Your task to perform on an android device: turn on airplane mode Image 0: 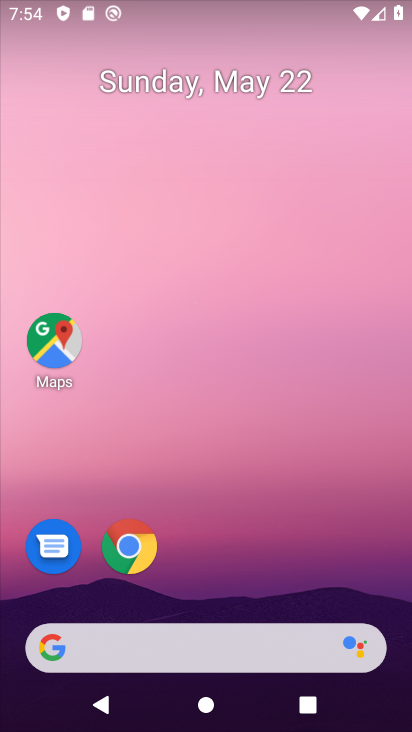
Step 0: drag from (323, 540) to (250, 5)
Your task to perform on an android device: turn on airplane mode Image 1: 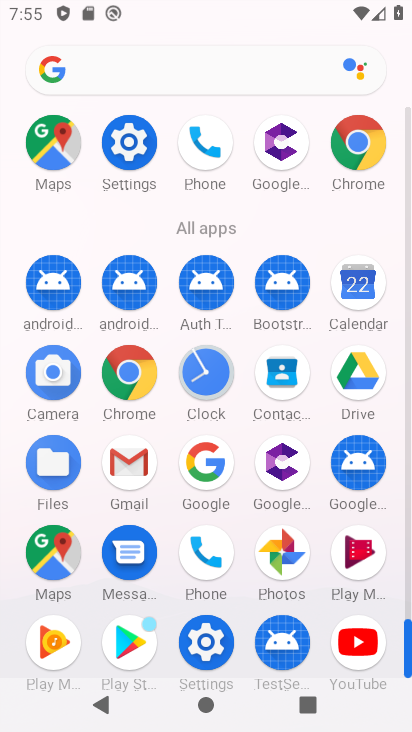
Step 1: click (136, 203)
Your task to perform on an android device: turn on airplane mode Image 2: 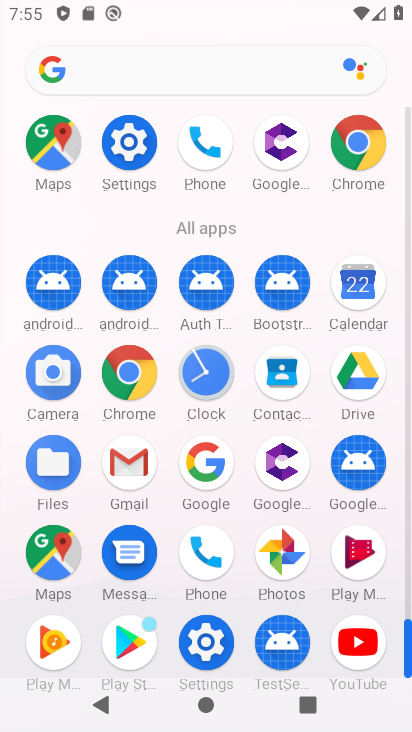
Step 2: click (120, 170)
Your task to perform on an android device: turn on airplane mode Image 3: 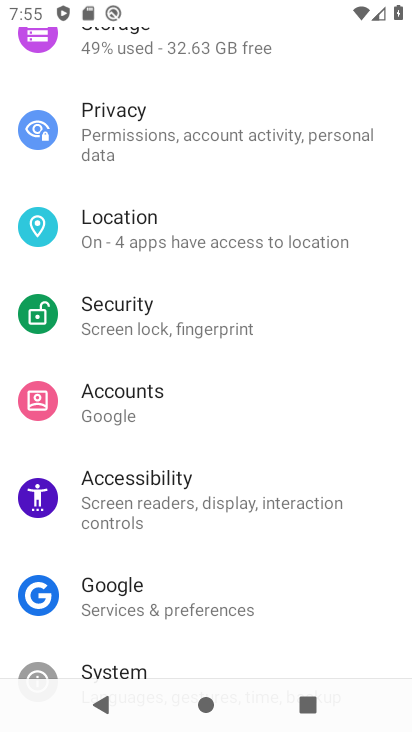
Step 3: drag from (120, 174) to (144, 563)
Your task to perform on an android device: turn on airplane mode Image 4: 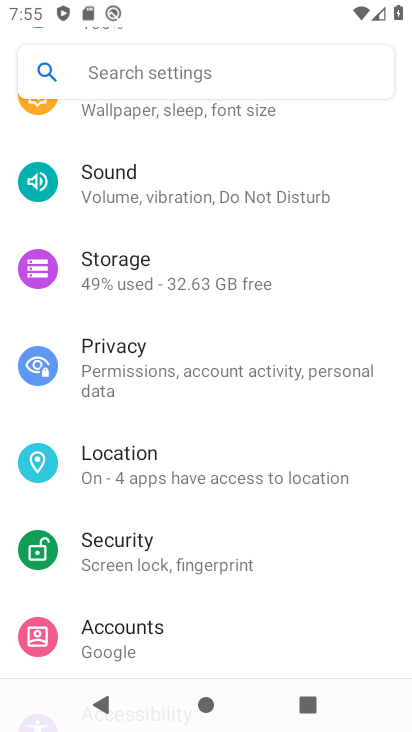
Step 4: drag from (150, 337) to (189, 565)
Your task to perform on an android device: turn on airplane mode Image 5: 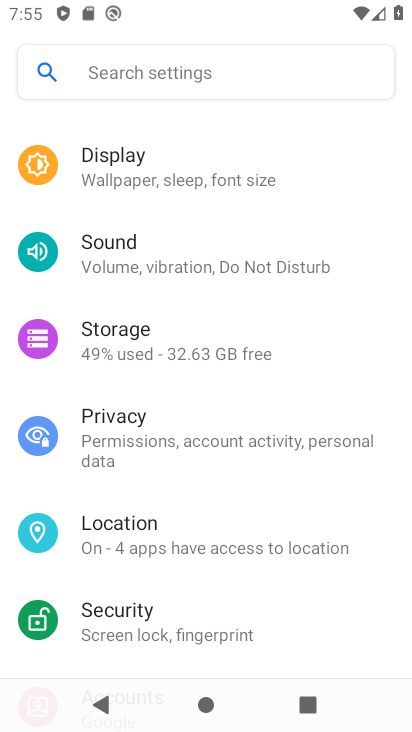
Step 5: drag from (177, 302) to (210, 581)
Your task to perform on an android device: turn on airplane mode Image 6: 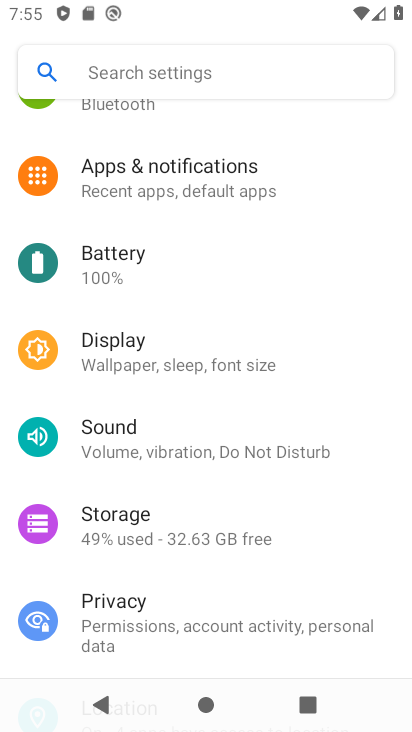
Step 6: drag from (152, 253) to (202, 621)
Your task to perform on an android device: turn on airplane mode Image 7: 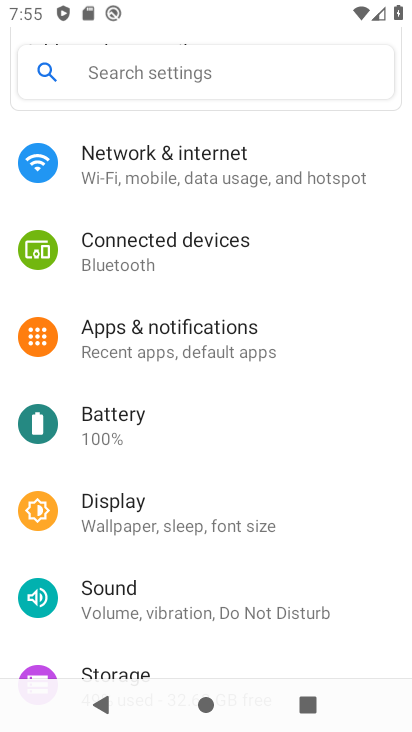
Step 7: click (152, 170)
Your task to perform on an android device: turn on airplane mode Image 8: 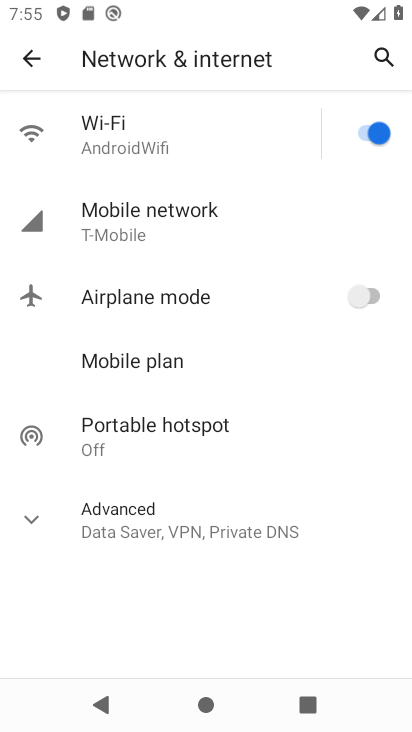
Step 8: click (359, 307)
Your task to perform on an android device: turn on airplane mode Image 9: 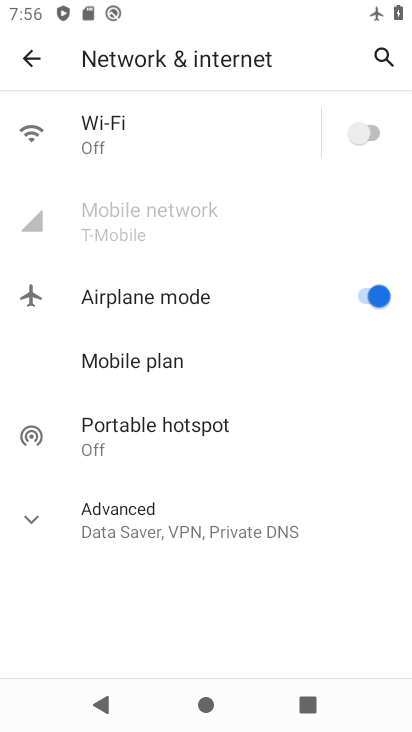
Step 9: task complete